Your task to perform on an android device: Open Chrome and go to settings Image 0: 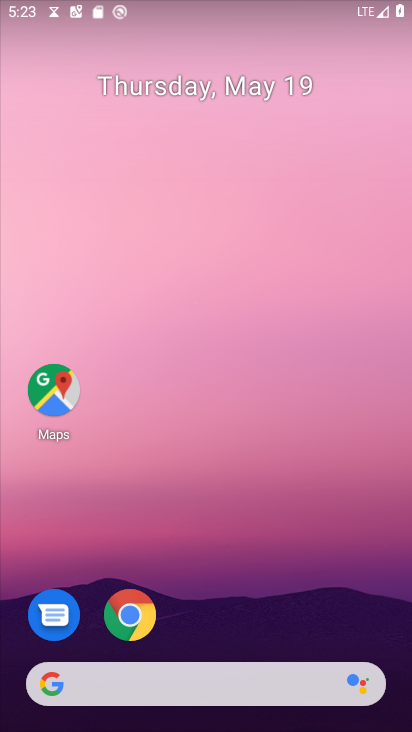
Step 0: drag from (290, 629) to (222, 110)
Your task to perform on an android device: Open Chrome and go to settings Image 1: 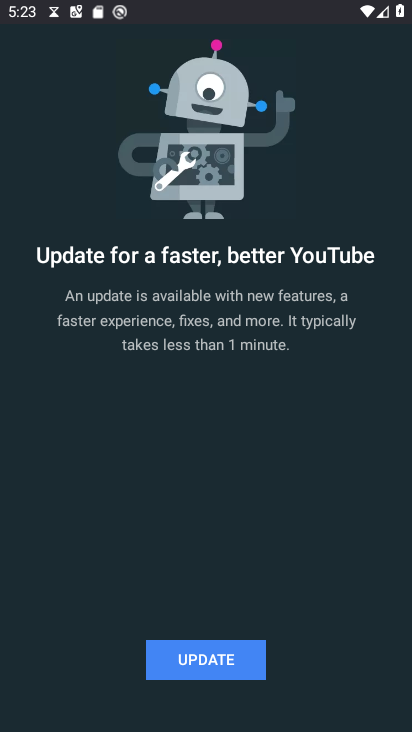
Step 1: press home button
Your task to perform on an android device: Open Chrome and go to settings Image 2: 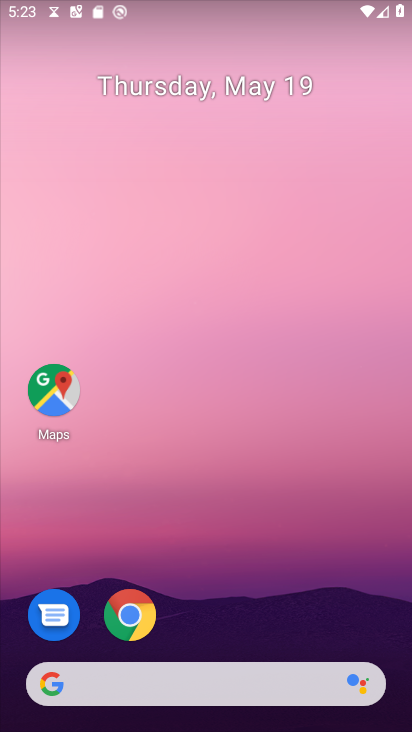
Step 2: drag from (253, 640) to (345, 99)
Your task to perform on an android device: Open Chrome and go to settings Image 3: 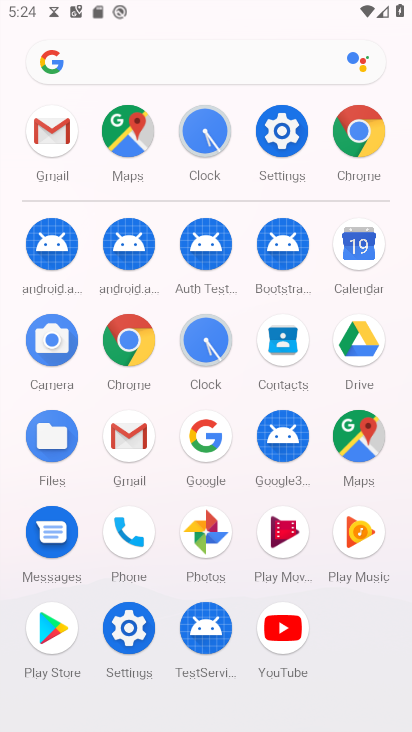
Step 3: click (119, 340)
Your task to perform on an android device: Open Chrome and go to settings Image 4: 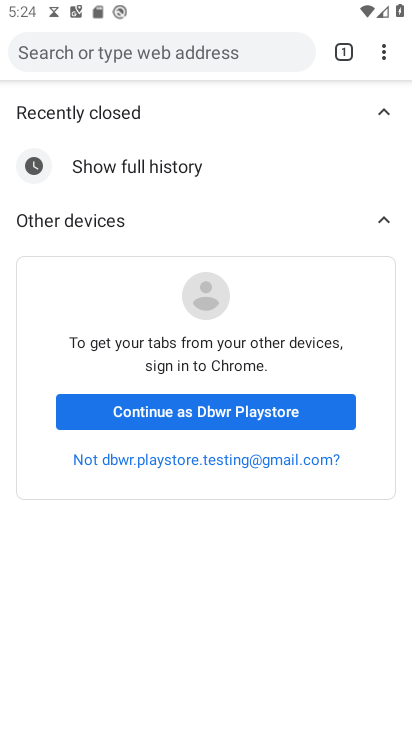
Step 4: task complete